Your task to perform on an android device: Open Google Maps Image 0: 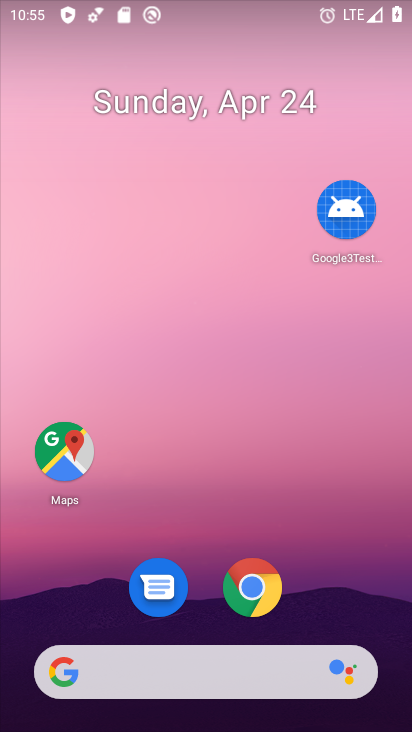
Step 0: drag from (347, 544) to (334, 140)
Your task to perform on an android device: Open Google Maps Image 1: 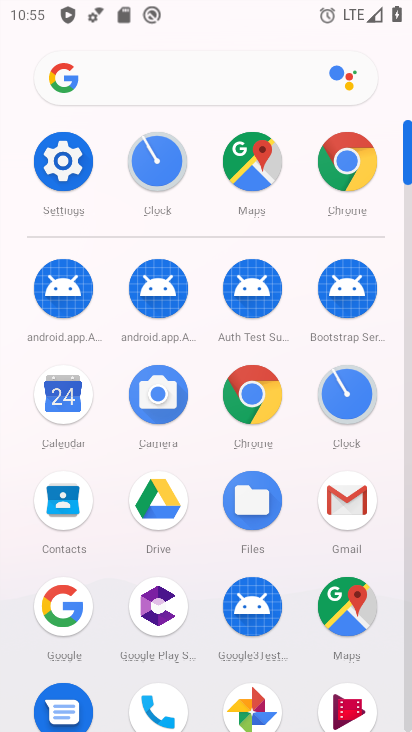
Step 1: click (327, 604)
Your task to perform on an android device: Open Google Maps Image 2: 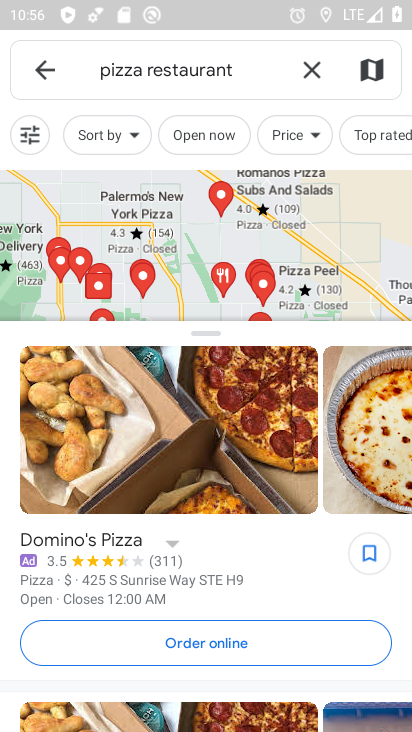
Step 2: task complete